Your task to perform on an android device: set the timer Image 0: 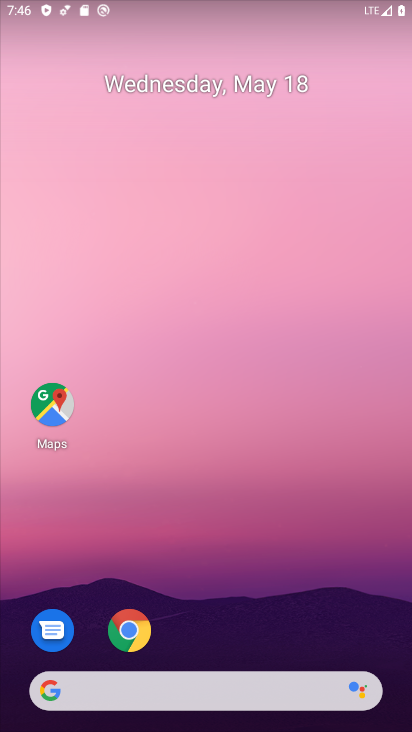
Step 0: drag from (256, 558) to (277, 125)
Your task to perform on an android device: set the timer Image 1: 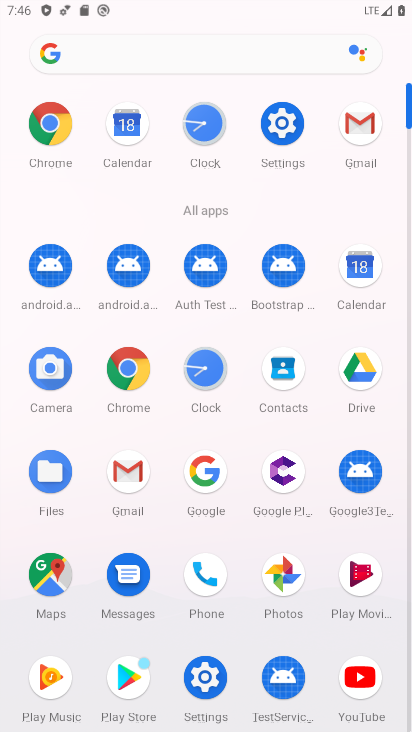
Step 1: click (196, 363)
Your task to perform on an android device: set the timer Image 2: 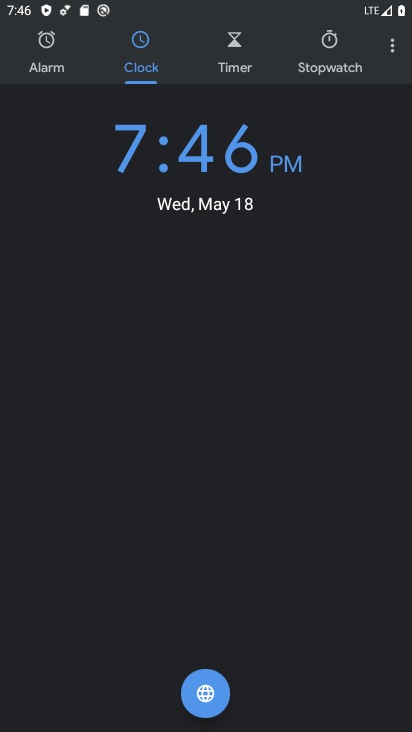
Step 2: click (224, 53)
Your task to perform on an android device: set the timer Image 3: 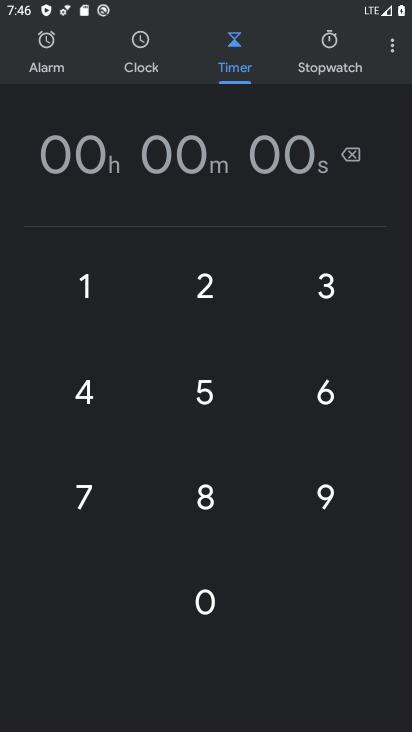
Step 3: click (214, 309)
Your task to perform on an android device: set the timer Image 4: 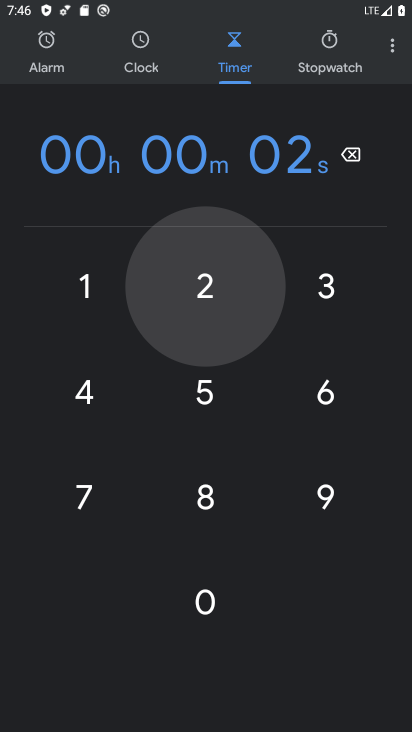
Step 4: click (214, 359)
Your task to perform on an android device: set the timer Image 5: 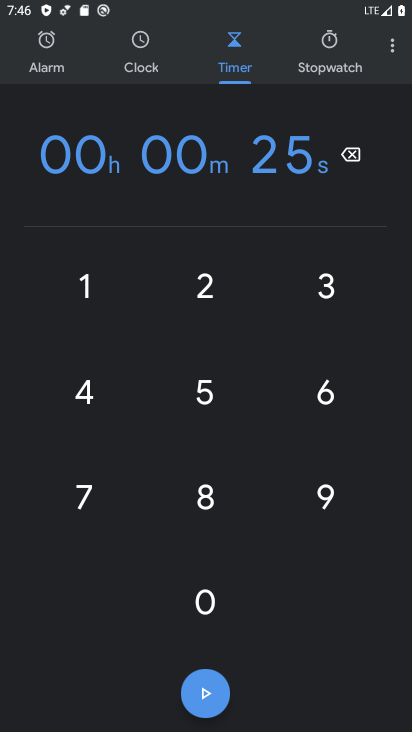
Step 5: click (195, 308)
Your task to perform on an android device: set the timer Image 6: 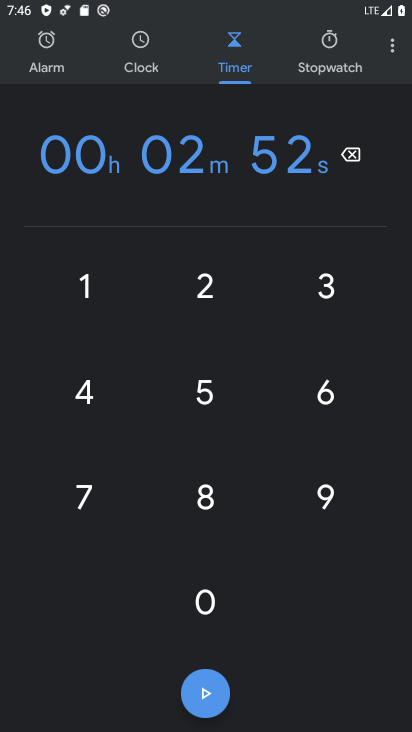
Step 6: click (206, 387)
Your task to perform on an android device: set the timer Image 7: 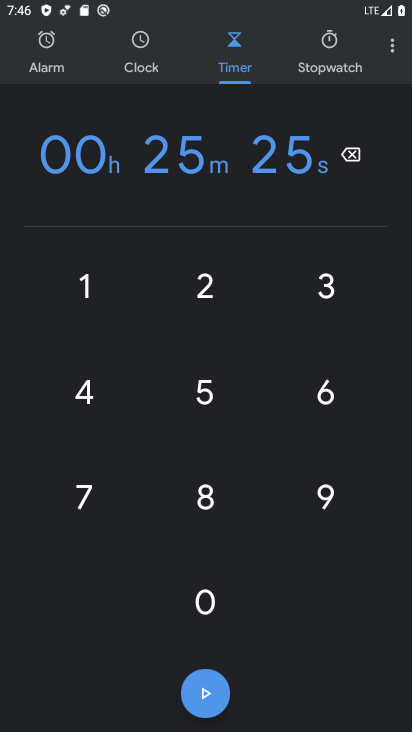
Step 7: click (188, 279)
Your task to perform on an android device: set the timer Image 8: 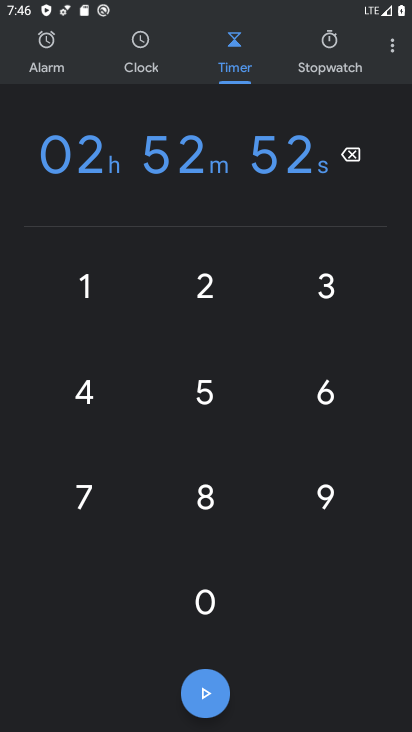
Step 8: click (198, 376)
Your task to perform on an android device: set the timer Image 9: 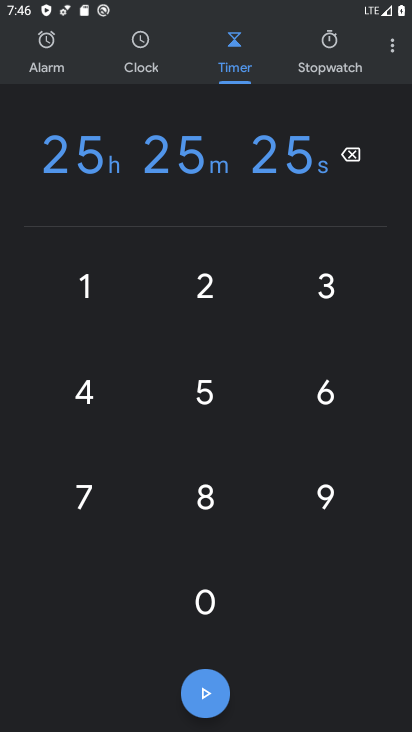
Step 9: click (204, 692)
Your task to perform on an android device: set the timer Image 10: 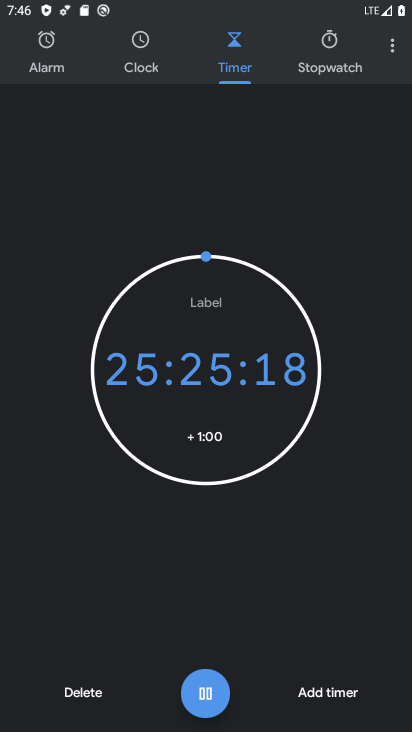
Step 10: task complete